Your task to perform on an android device: toggle priority inbox in the gmail app Image 0: 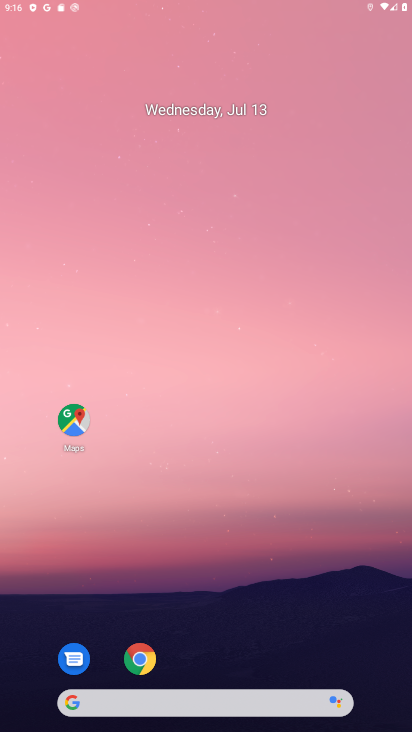
Step 0: press home button
Your task to perform on an android device: toggle priority inbox in the gmail app Image 1: 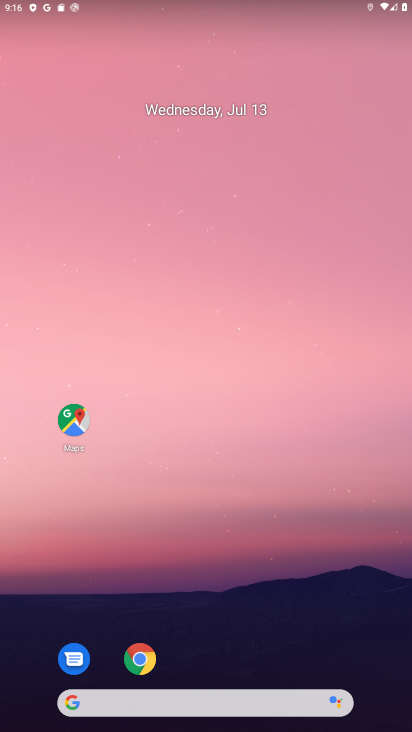
Step 1: drag from (222, 629) to (214, 172)
Your task to perform on an android device: toggle priority inbox in the gmail app Image 2: 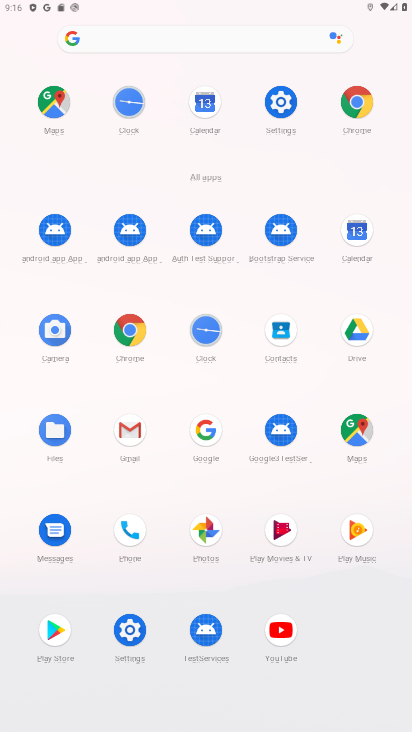
Step 2: click (124, 432)
Your task to perform on an android device: toggle priority inbox in the gmail app Image 3: 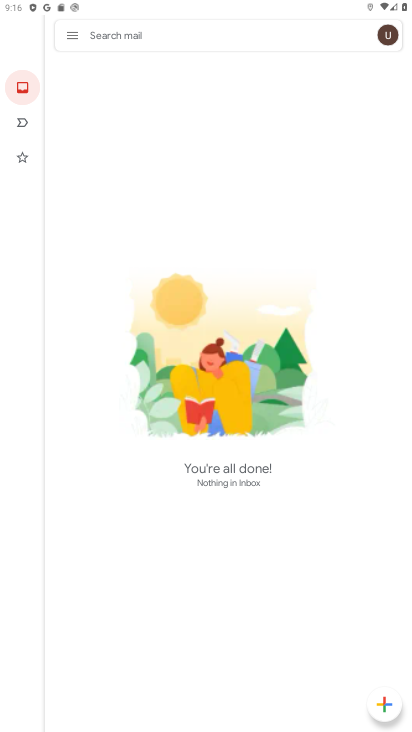
Step 3: click (69, 36)
Your task to perform on an android device: toggle priority inbox in the gmail app Image 4: 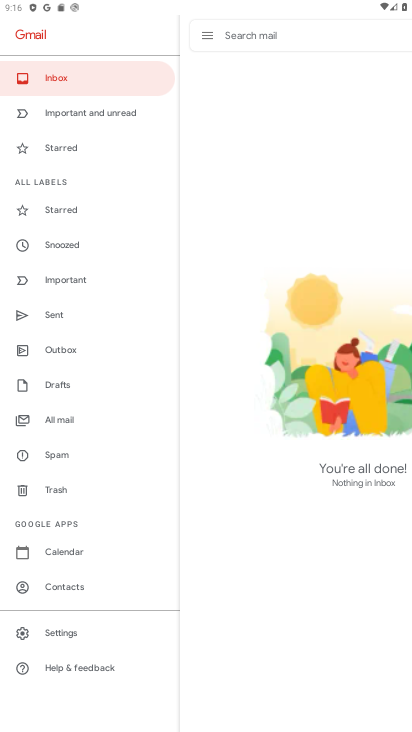
Step 4: click (62, 639)
Your task to perform on an android device: toggle priority inbox in the gmail app Image 5: 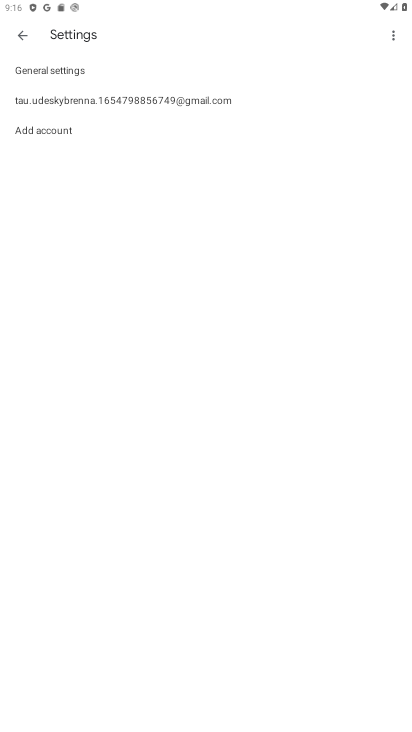
Step 5: click (98, 101)
Your task to perform on an android device: toggle priority inbox in the gmail app Image 6: 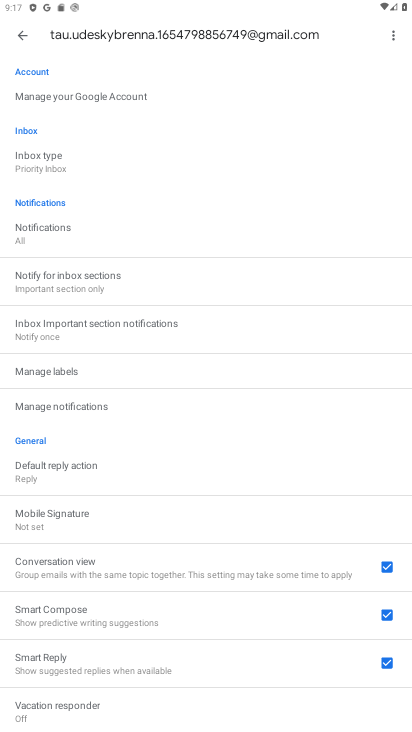
Step 6: click (68, 160)
Your task to perform on an android device: toggle priority inbox in the gmail app Image 7: 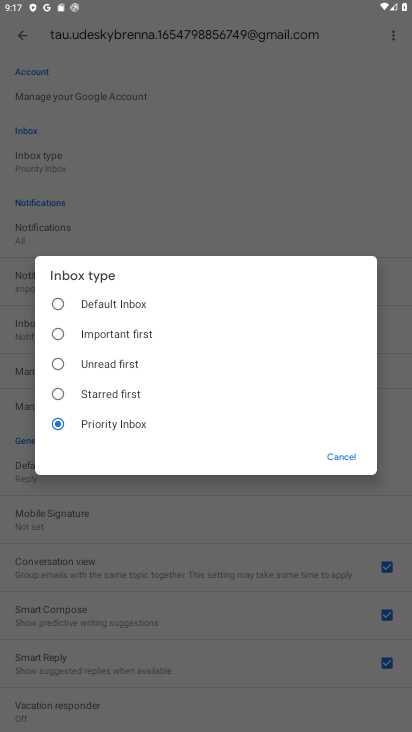
Step 7: click (77, 422)
Your task to perform on an android device: toggle priority inbox in the gmail app Image 8: 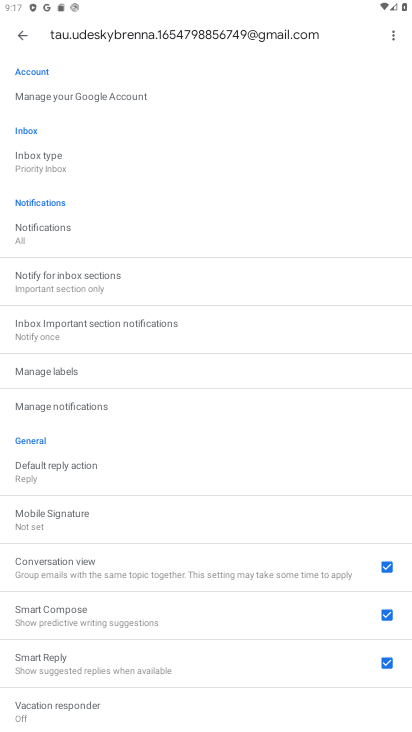
Step 8: task complete